Your task to perform on an android device: change timer sound Image 0: 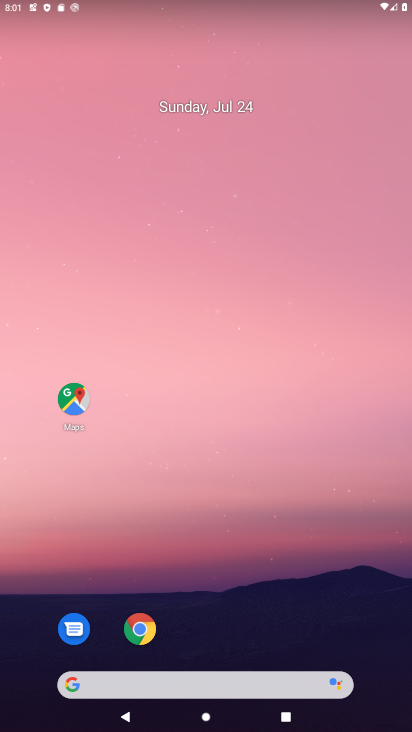
Step 0: drag from (246, 675) to (369, 126)
Your task to perform on an android device: change timer sound Image 1: 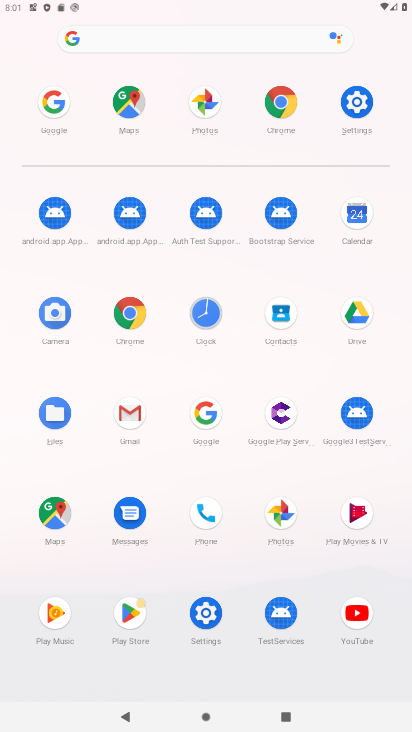
Step 1: click (177, 311)
Your task to perform on an android device: change timer sound Image 2: 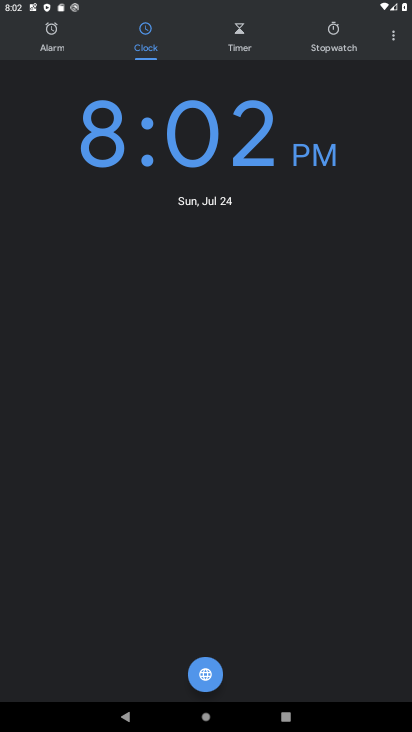
Step 2: click (396, 43)
Your task to perform on an android device: change timer sound Image 3: 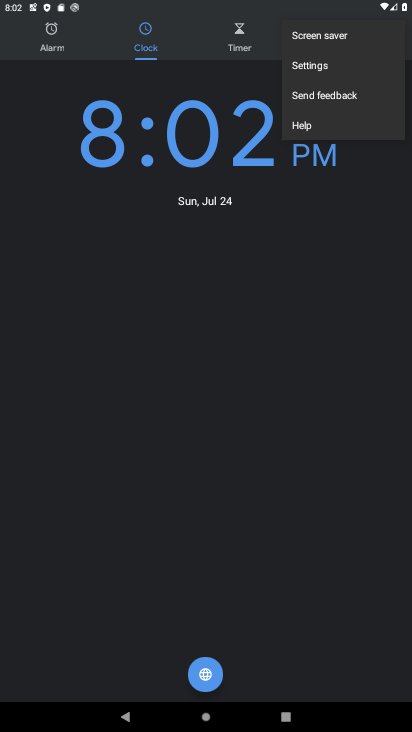
Step 3: click (302, 65)
Your task to perform on an android device: change timer sound Image 4: 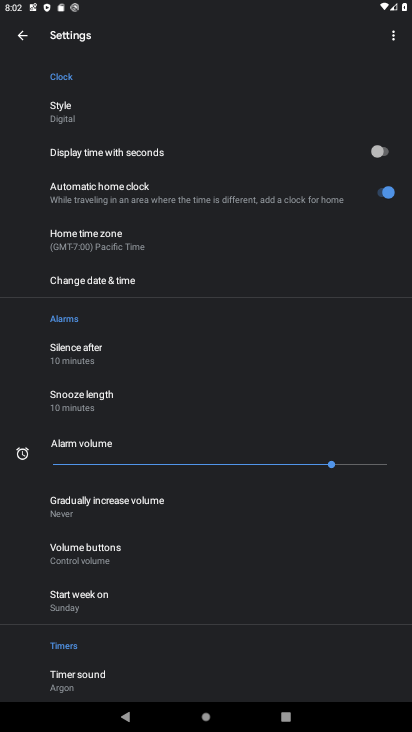
Step 4: drag from (140, 505) to (172, 355)
Your task to perform on an android device: change timer sound Image 5: 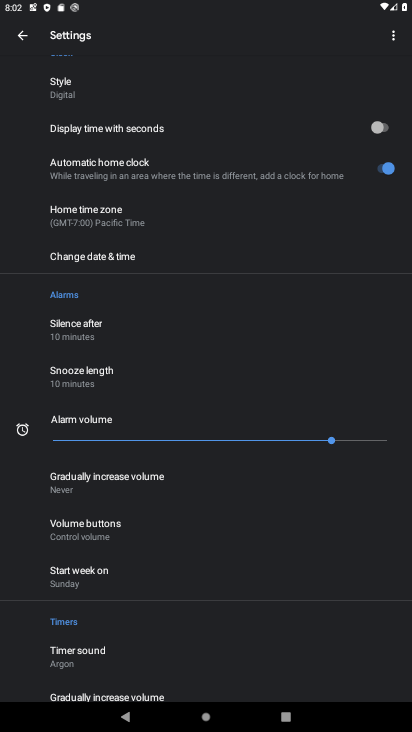
Step 5: click (115, 660)
Your task to perform on an android device: change timer sound Image 6: 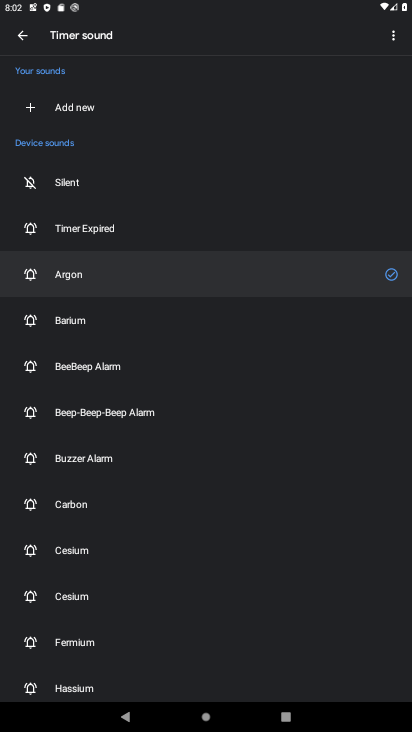
Step 6: click (106, 327)
Your task to perform on an android device: change timer sound Image 7: 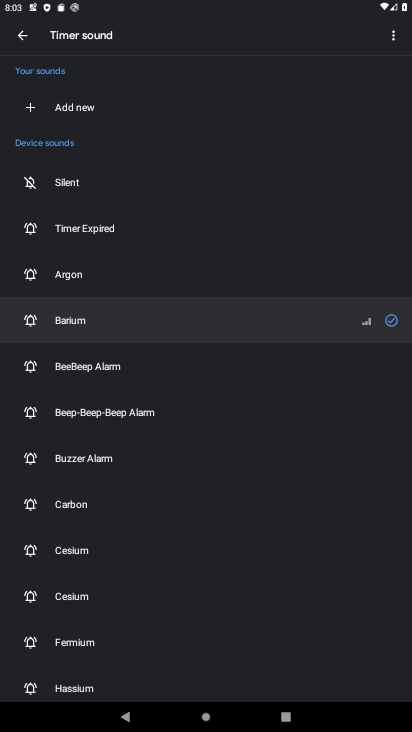
Step 7: task complete